Your task to perform on an android device: turn on the 24-hour format for clock Image 0: 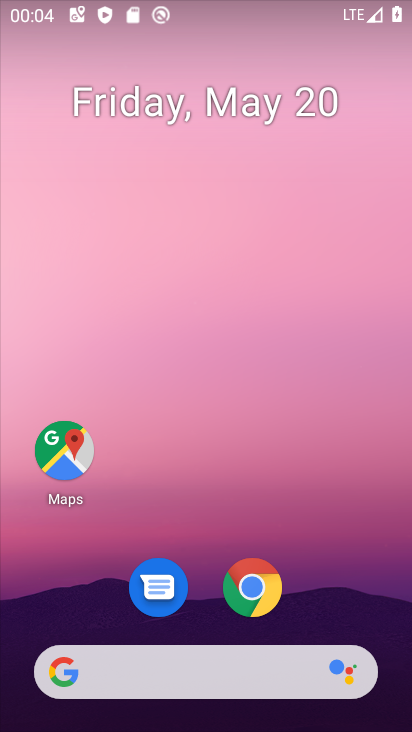
Step 0: press home button
Your task to perform on an android device: turn on the 24-hour format for clock Image 1: 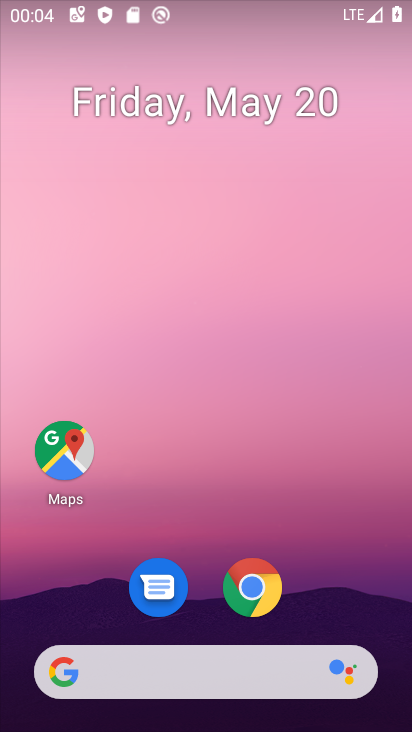
Step 1: drag from (272, 656) to (276, 216)
Your task to perform on an android device: turn on the 24-hour format for clock Image 2: 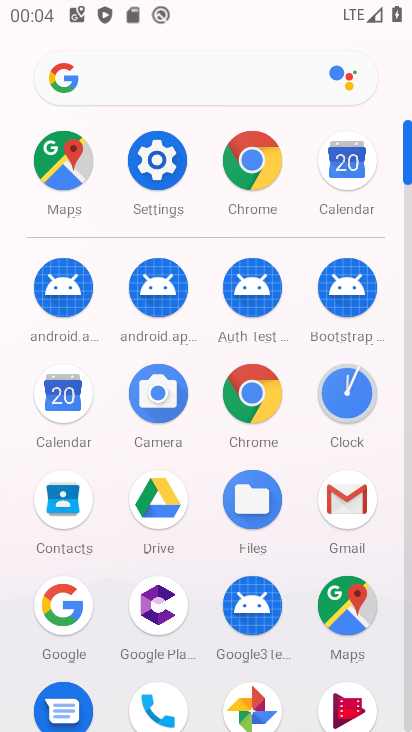
Step 2: click (358, 378)
Your task to perform on an android device: turn on the 24-hour format for clock Image 3: 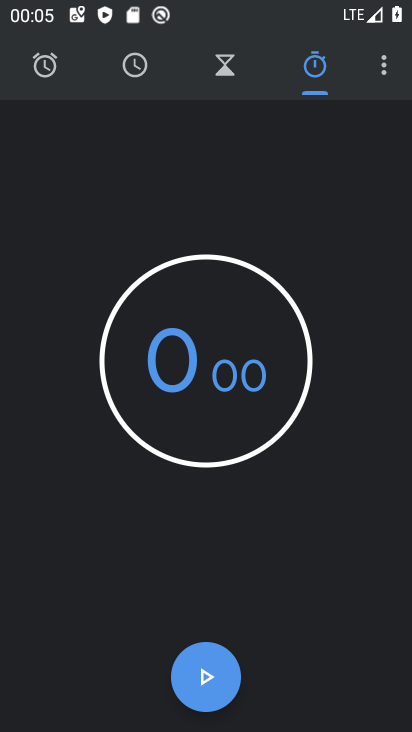
Step 3: click (387, 83)
Your task to perform on an android device: turn on the 24-hour format for clock Image 4: 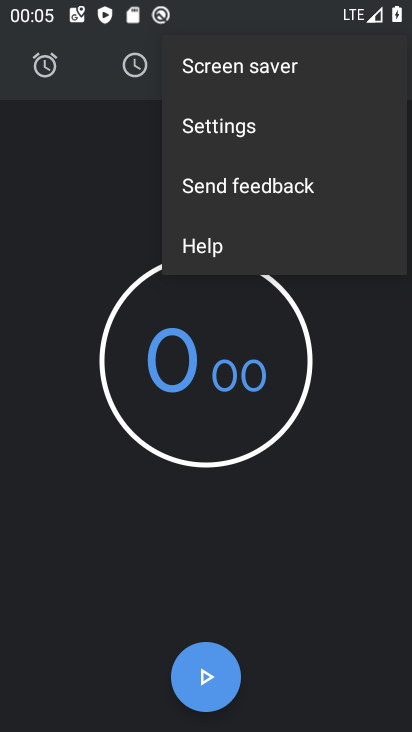
Step 4: click (283, 135)
Your task to perform on an android device: turn on the 24-hour format for clock Image 5: 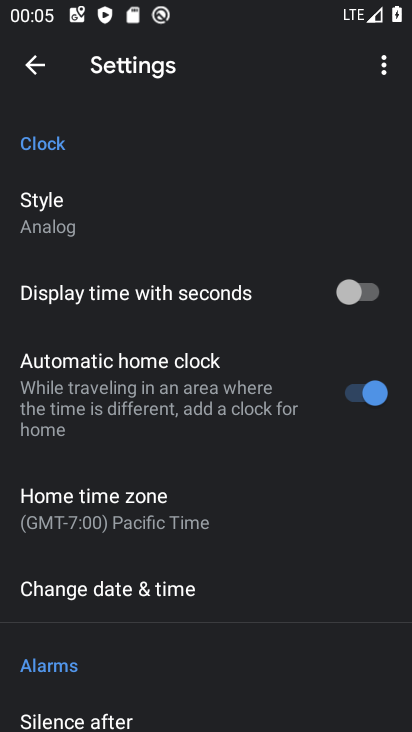
Step 5: drag from (176, 598) to (177, 423)
Your task to perform on an android device: turn on the 24-hour format for clock Image 6: 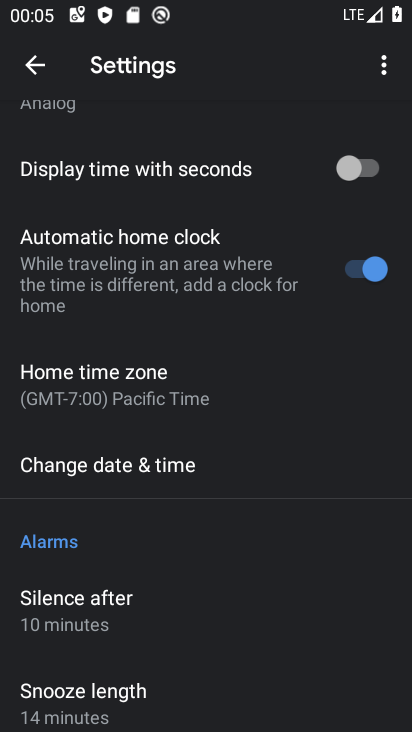
Step 6: click (145, 474)
Your task to perform on an android device: turn on the 24-hour format for clock Image 7: 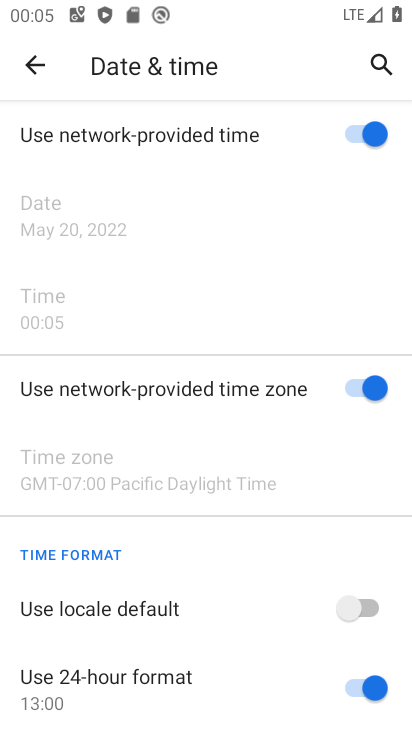
Step 7: task complete